Your task to perform on an android device: toggle javascript in the chrome app Image 0: 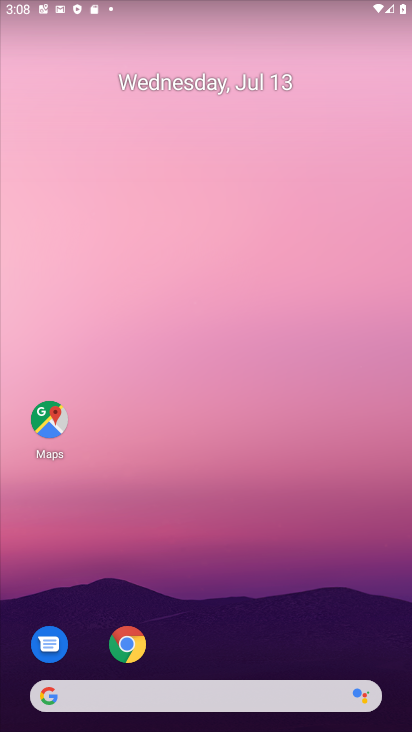
Step 0: click (108, 630)
Your task to perform on an android device: toggle javascript in the chrome app Image 1: 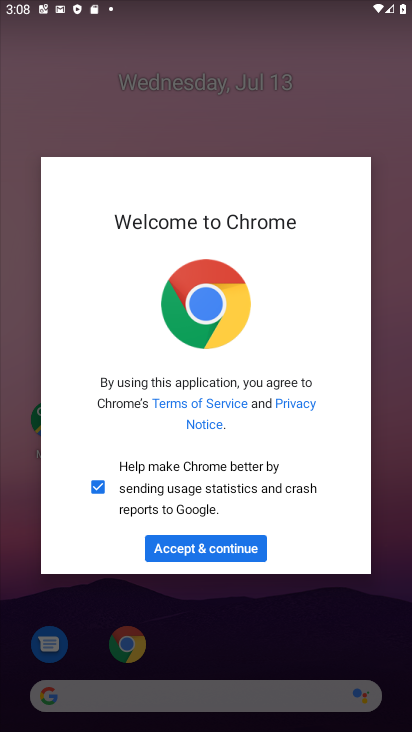
Step 1: click (205, 541)
Your task to perform on an android device: toggle javascript in the chrome app Image 2: 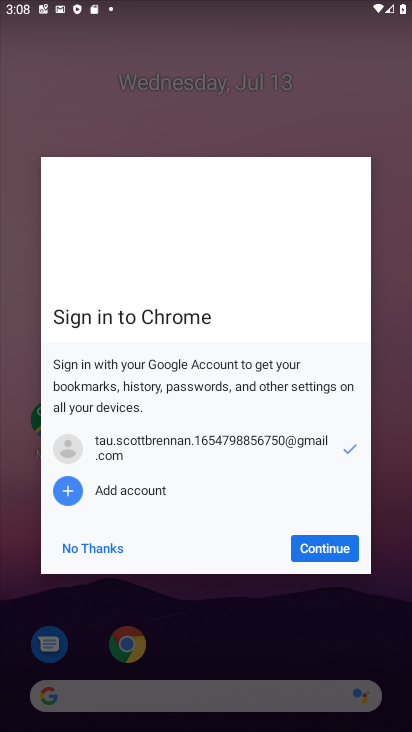
Step 2: click (314, 550)
Your task to perform on an android device: toggle javascript in the chrome app Image 3: 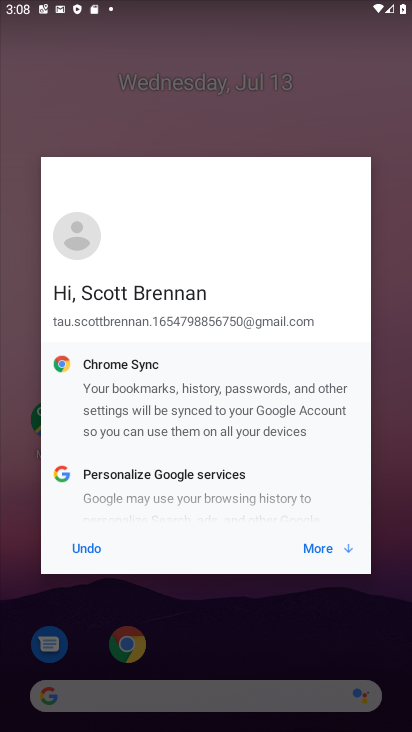
Step 3: click (320, 548)
Your task to perform on an android device: toggle javascript in the chrome app Image 4: 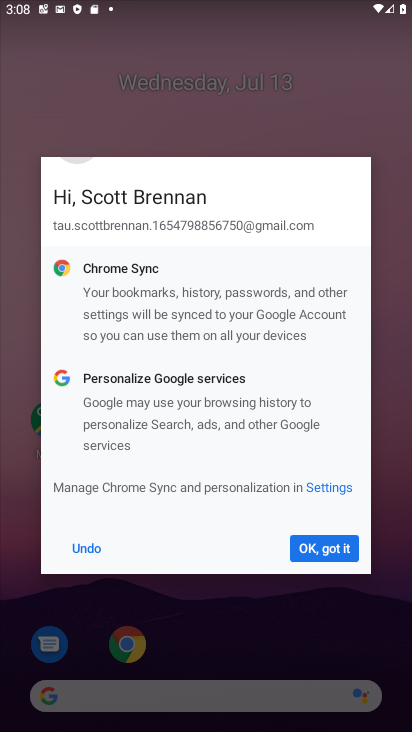
Step 4: click (324, 534)
Your task to perform on an android device: toggle javascript in the chrome app Image 5: 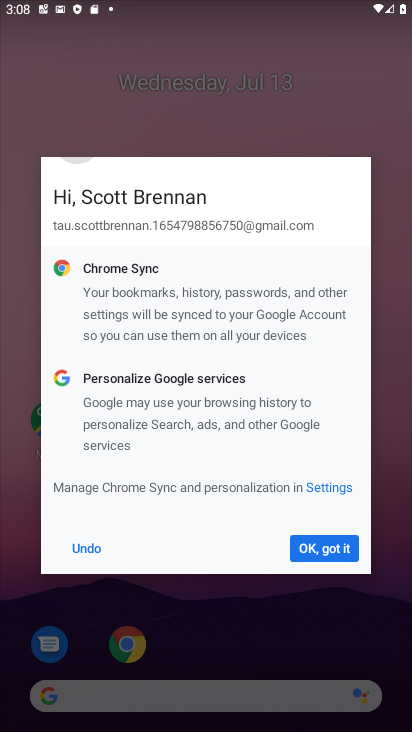
Step 5: click (323, 538)
Your task to perform on an android device: toggle javascript in the chrome app Image 6: 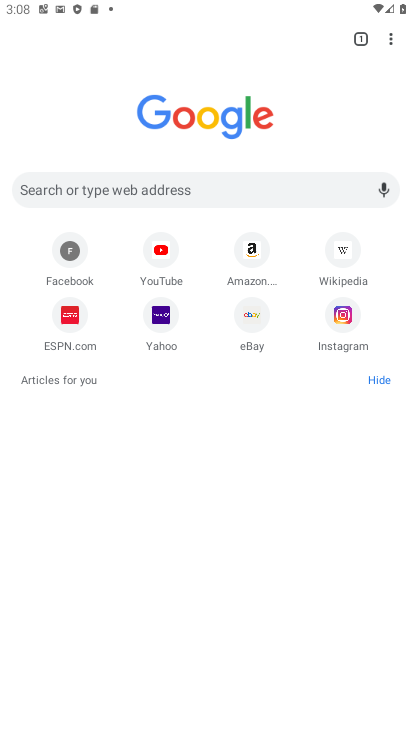
Step 6: click (393, 33)
Your task to perform on an android device: toggle javascript in the chrome app Image 7: 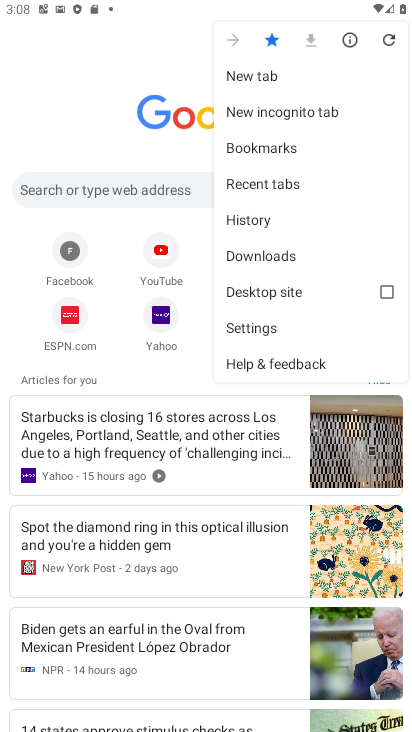
Step 7: click (262, 333)
Your task to perform on an android device: toggle javascript in the chrome app Image 8: 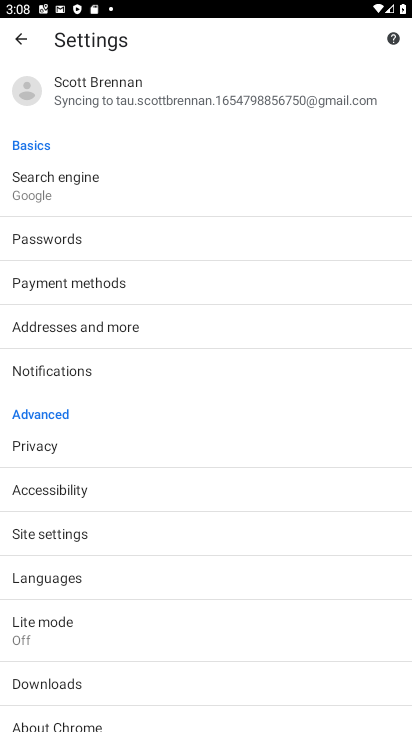
Step 8: click (48, 491)
Your task to perform on an android device: toggle javascript in the chrome app Image 9: 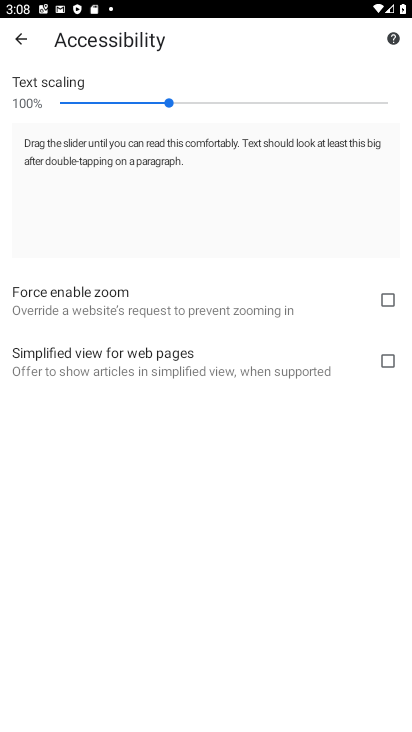
Step 9: click (8, 38)
Your task to perform on an android device: toggle javascript in the chrome app Image 10: 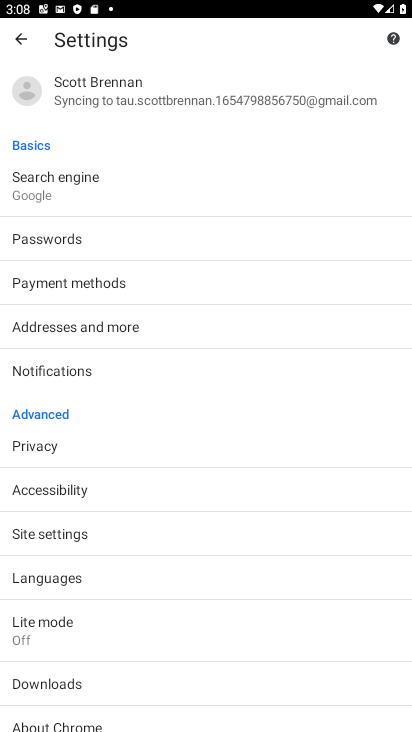
Step 10: click (59, 527)
Your task to perform on an android device: toggle javascript in the chrome app Image 11: 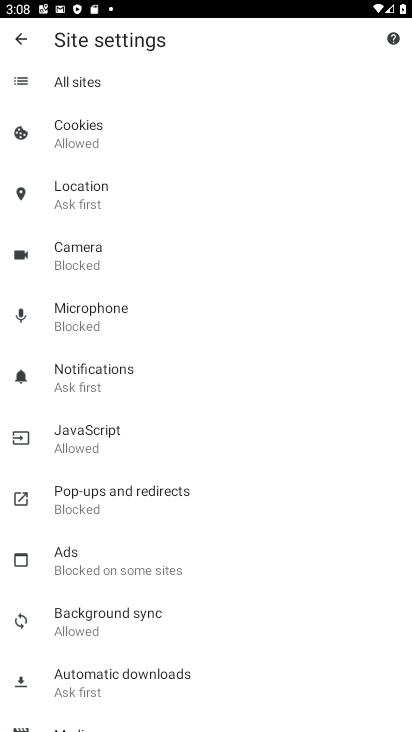
Step 11: click (88, 439)
Your task to perform on an android device: toggle javascript in the chrome app Image 12: 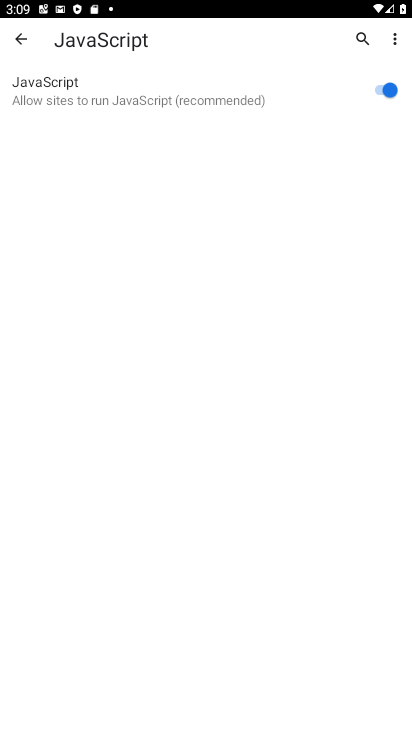
Step 12: task complete